Your task to perform on an android device: Open the Play Movies app and select the watchlist tab. Image 0: 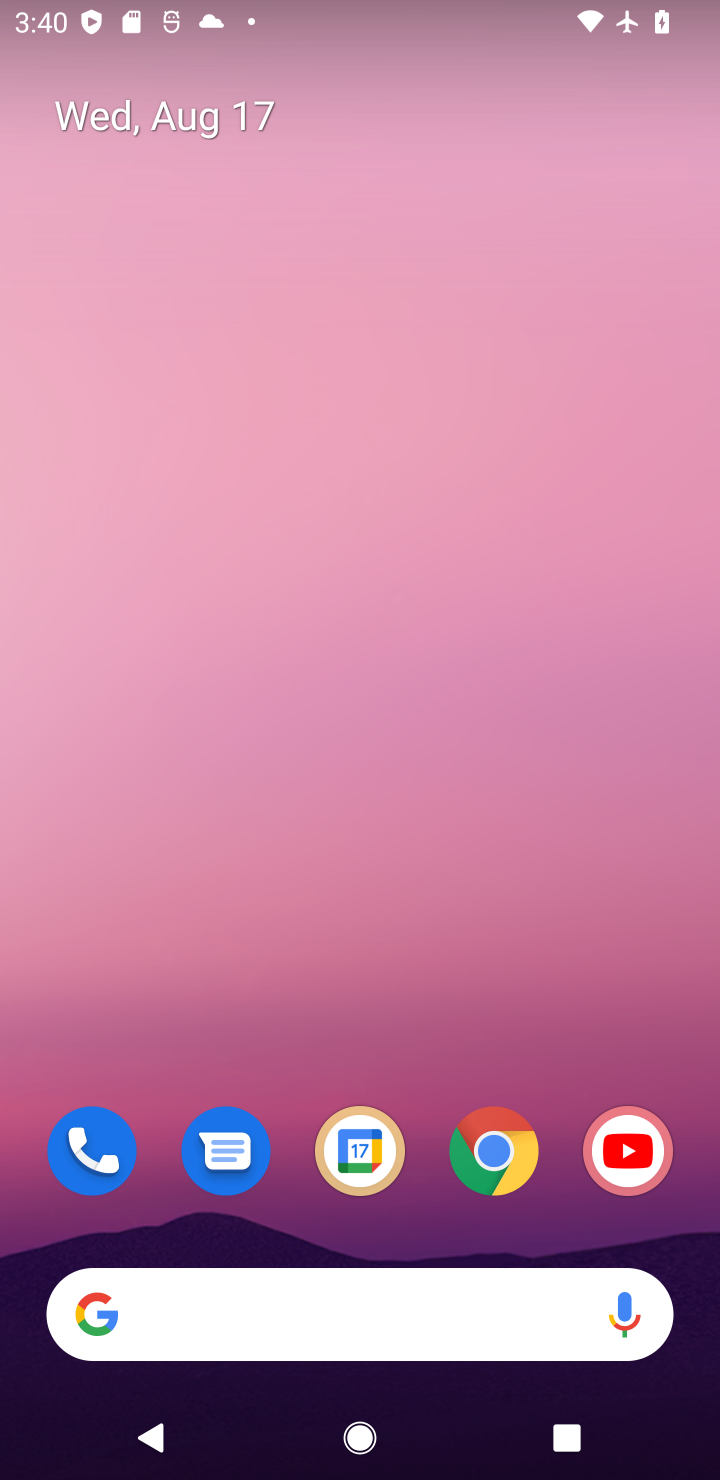
Step 0: drag from (422, 1211) to (564, 135)
Your task to perform on an android device: Open the Play Movies app and select the watchlist tab. Image 1: 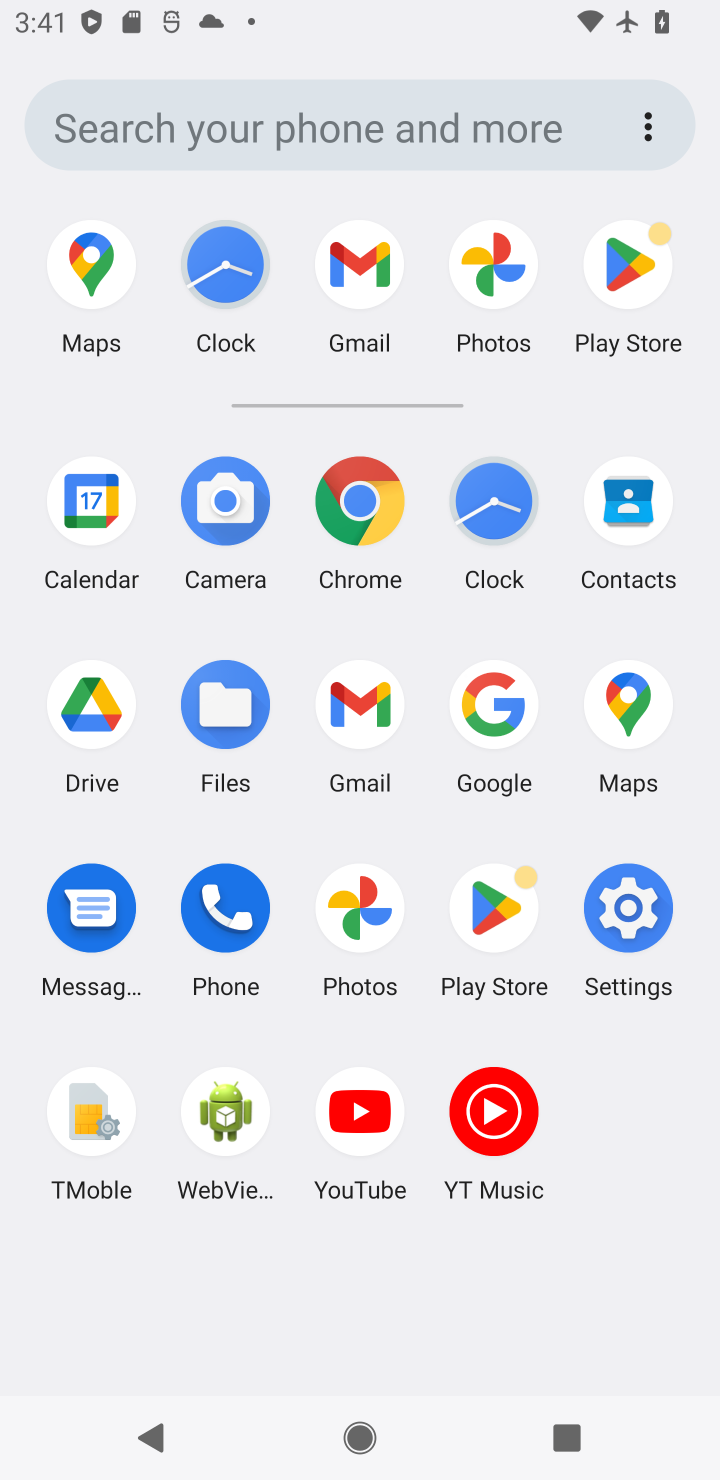
Step 1: click (492, 1111)
Your task to perform on an android device: Open the Play Movies app and select the watchlist tab. Image 2: 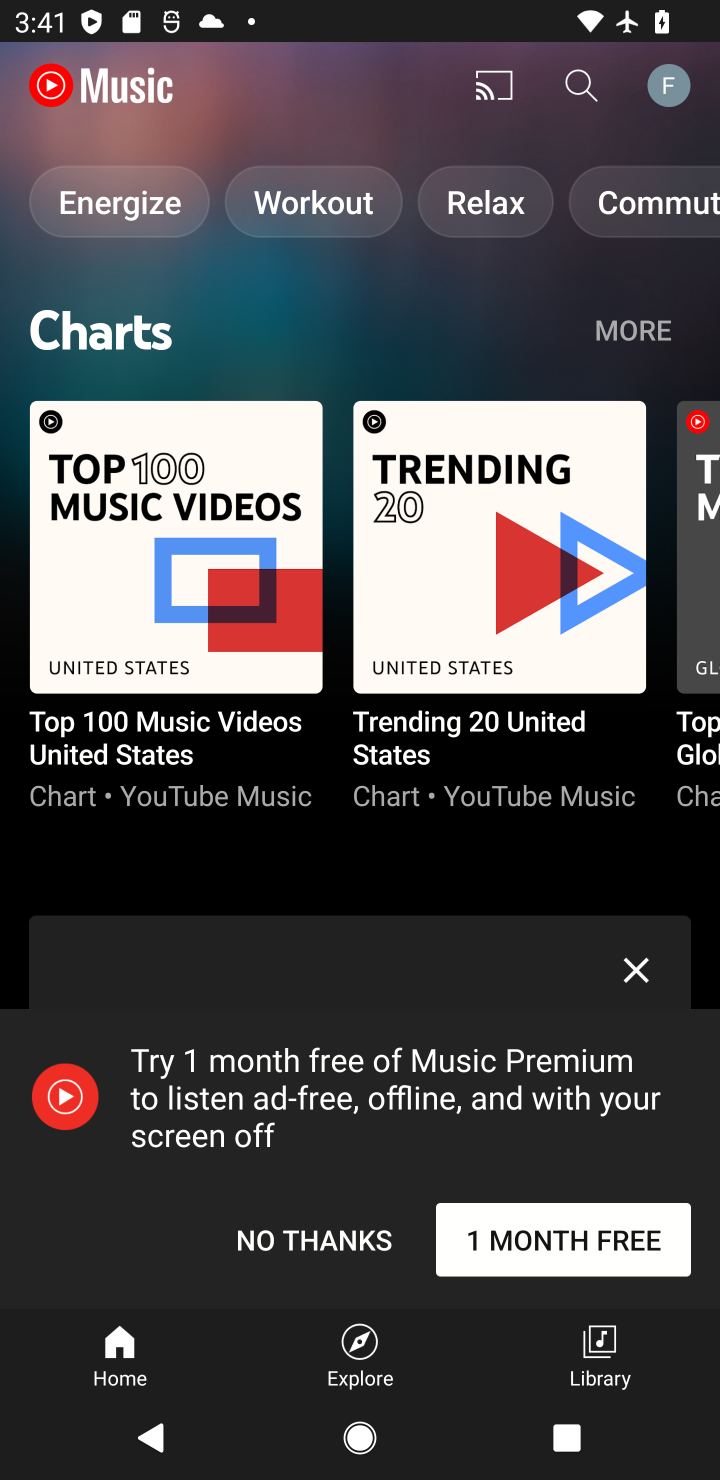
Step 2: task complete